Your task to perform on an android device: turn off airplane mode Image 0: 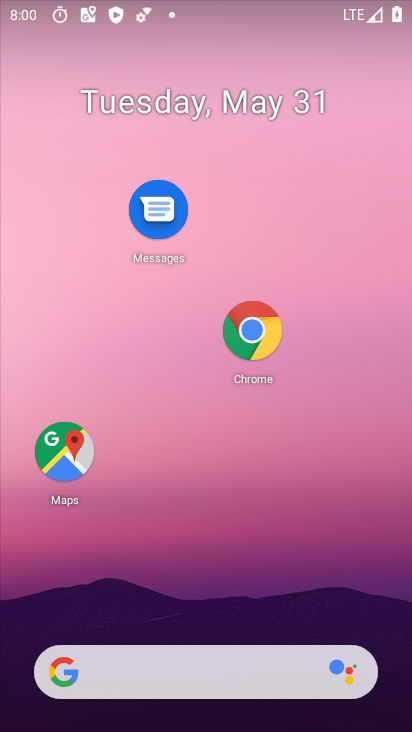
Step 0: drag from (158, 596) to (118, 38)
Your task to perform on an android device: turn off airplane mode Image 1: 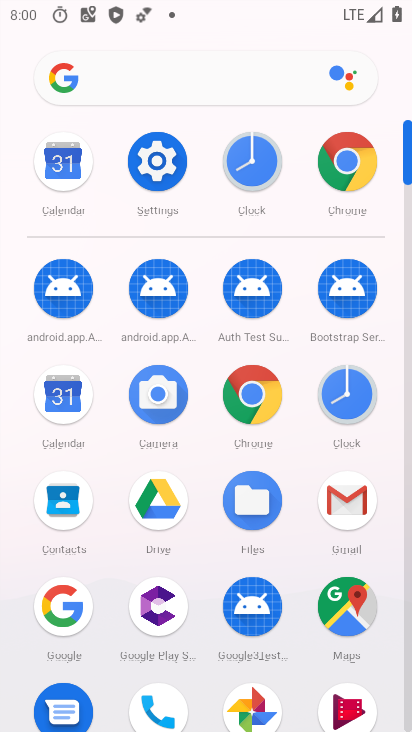
Step 1: click (152, 160)
Your task to perform on an android device: turn off airplane mode Image 2: 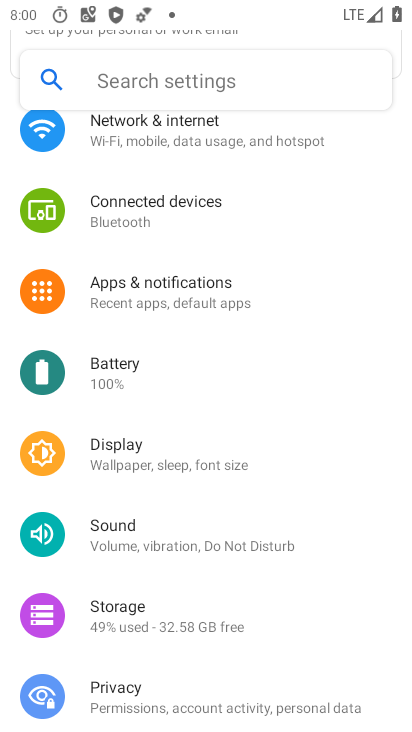
Step 2: click (141, 144)
Your task to perform on an android device: turn off airplane mode Image 3: 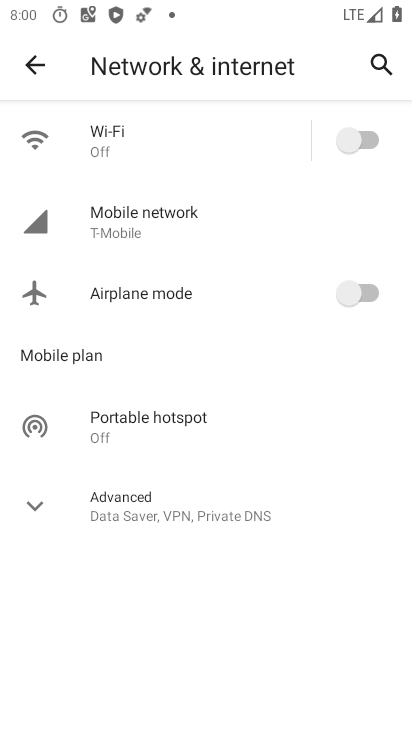
Step 3: task complete